Your task to perform on an android device: Go to CNN.com Image 0: 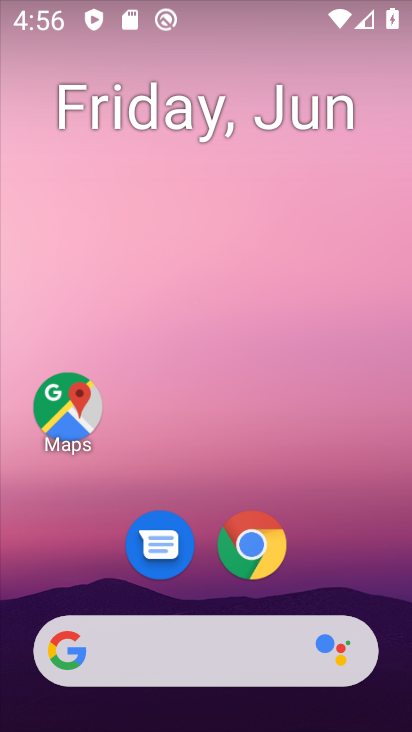
Step 0: drag from (201, 613) to (210, 280)
Your task to perform on an android device: Go to CNN.com Image 1: 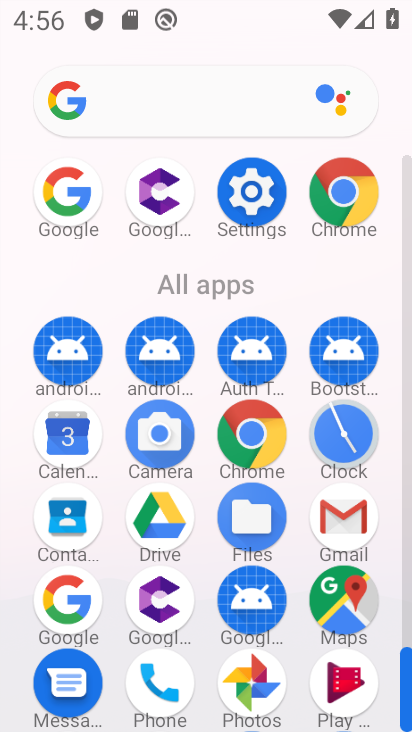
Step 1: click (73, 598)
Your task to perform on an android device: Go to CNN.com Image 2: 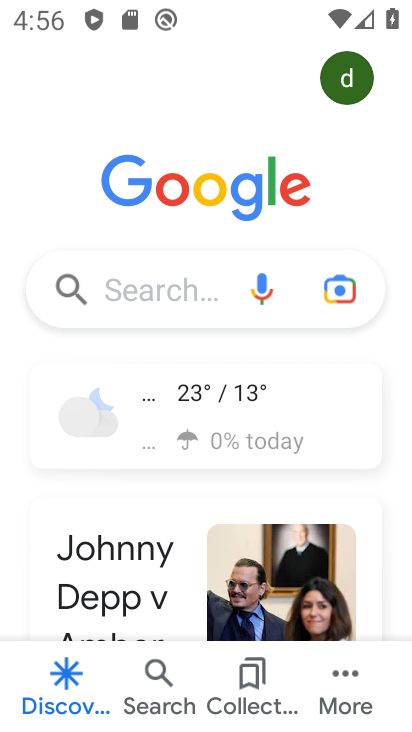
Step 2: click (139, 287)
Your task to perform on an android device: Go to CNN.com Image 3: 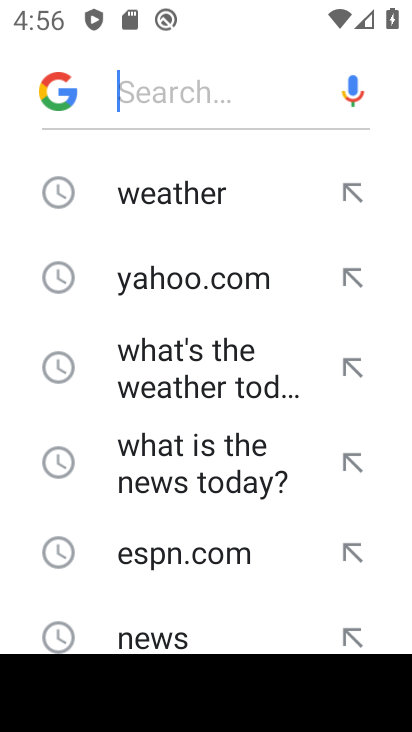
Step 3: drag from (174, 629) to (175, 377)
Your task to perform on an android device: Go to CNN.com Image 4: 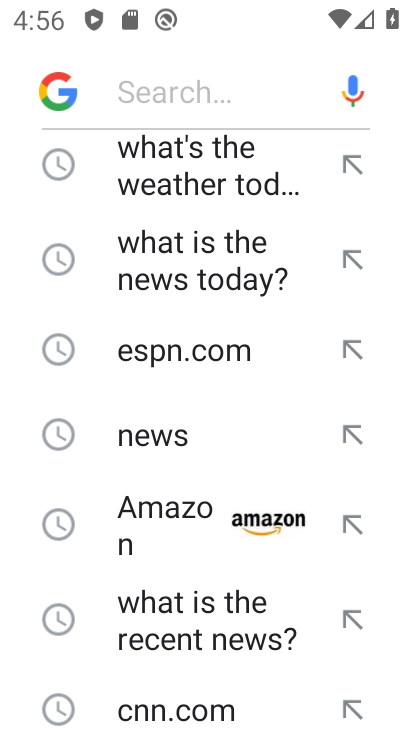
Step 4: drag from (174, 674) to (157, 333)
Your task to perform on an android device: Go to CNN.com Image 5: 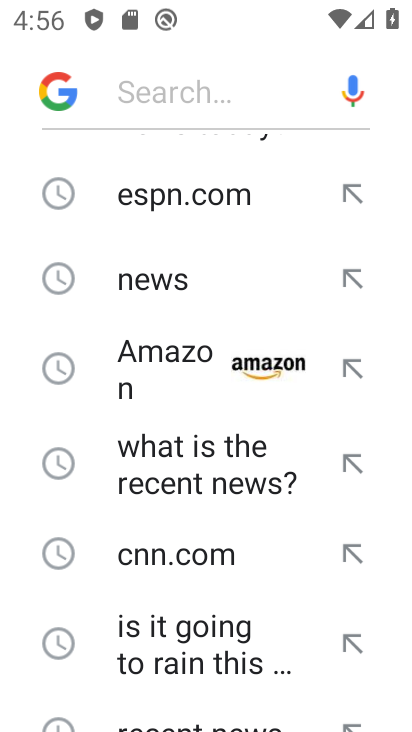
Step 5: click (175, 565)
Your task to perform on an android device: Go to CNN.com Image 6: 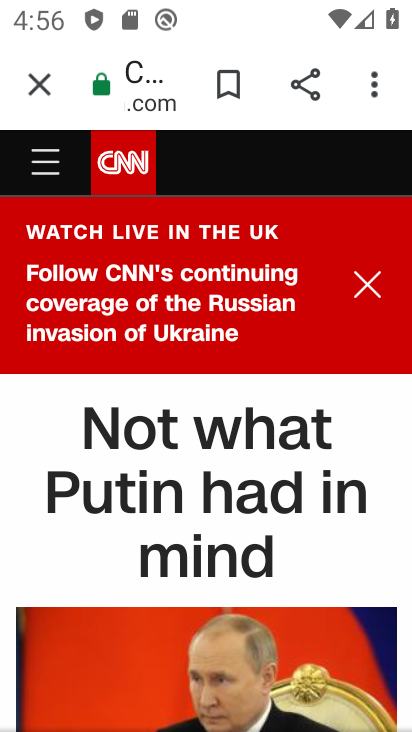
Step 6: task complete